Your task to perform on an android device: find photos in the google photos app Image 0: 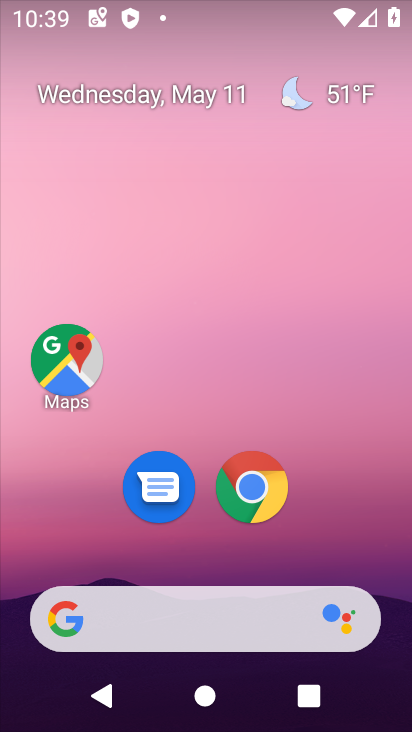
Step 0: drag from (347, 529) to (341, 176)
Your task to perform on an android device: find photos in the google photos app Image 1: 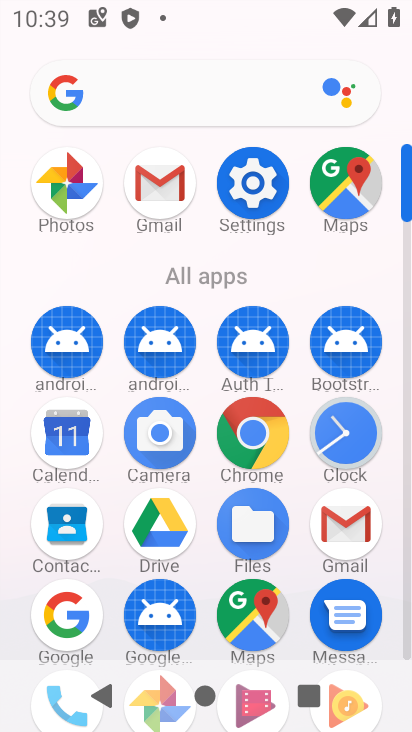
Step 1: drag from (212, 550) to (191, 302)
Your task to perform on an android device: find photos in the google photos app Image 2: 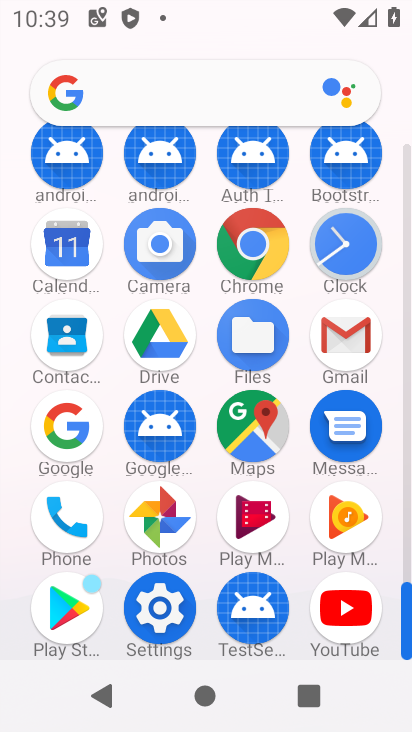
Step 2: click (172, 513)
Your task to perform on an android device: find photos in the google photos app Image 3: 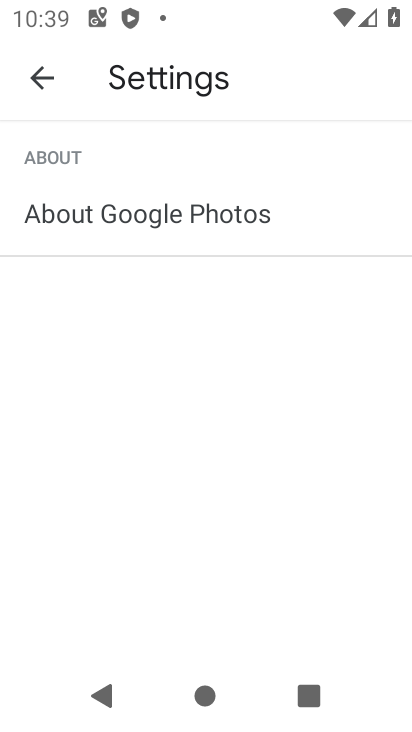
Step 3: task complete